Your task to perform on an android device: turn vacation reply on in the gmail app Image 0: 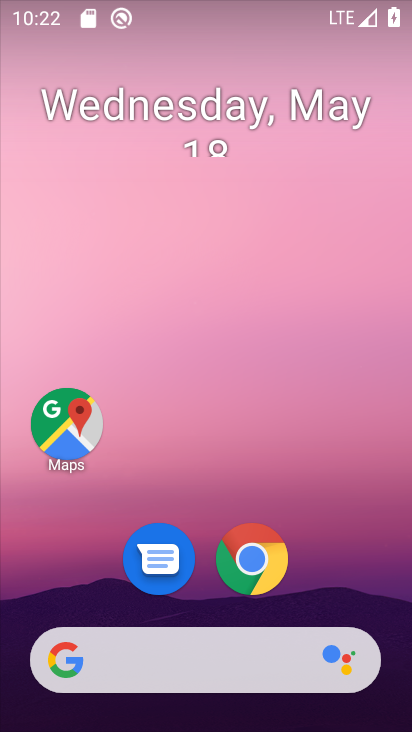
Step 0: drag from (211, 590) to (230, 110)
Your task to perform on an android device: turn vacation reply on in the gmail app Image 1: 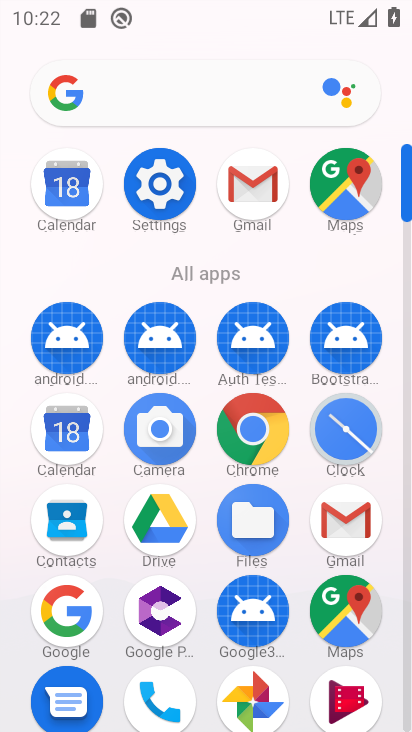
Step 1: click (346, 510)
Your task to perform on an android device: turn vacation reply on in the gmail app Image 2: 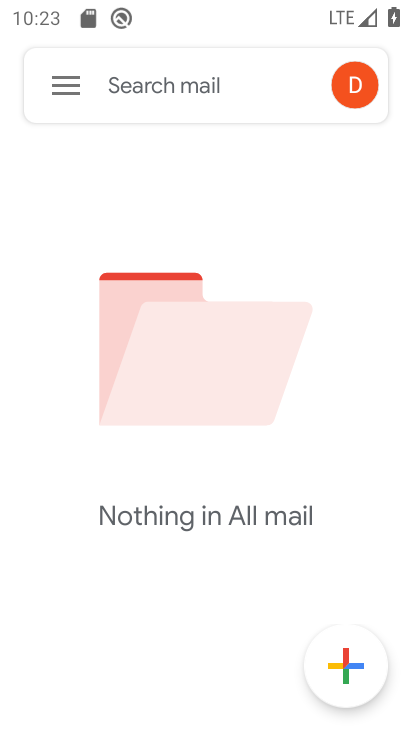
Step 2: click (64, 82)
Your task to perform on an android device: turn vacation reply on in the gmail app Image 3: 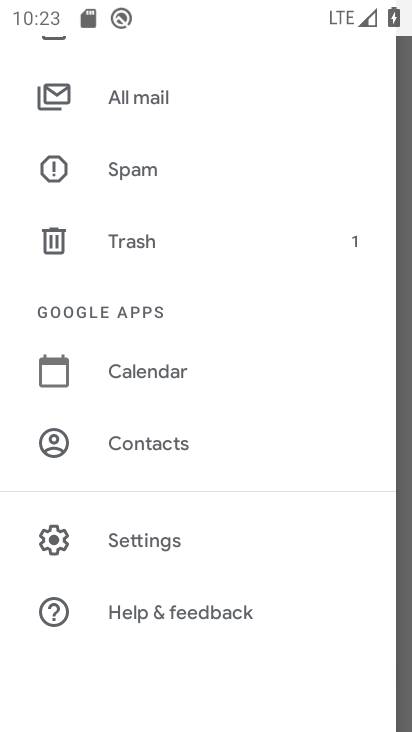
Step 3: click (157, 548)
Your task to perform on an android device: turn vacation reply on in the gmail app Image 4: 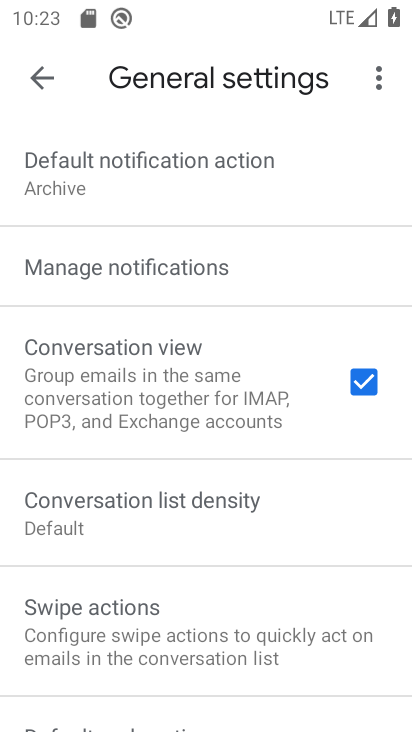
Step 4: click (39, 84)
Your task to perform on an android device: turn vacation reply on in the gmail app Image 5: 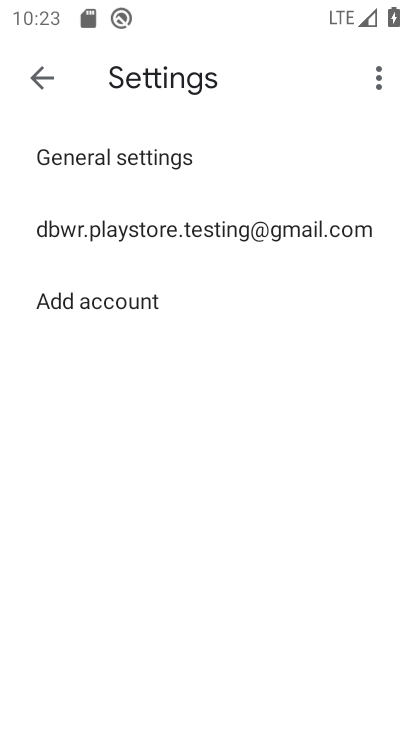
Step 5: click (115, 238)
Your task to perform on an android device: turn vacation reply on in the gmail app Image 6: 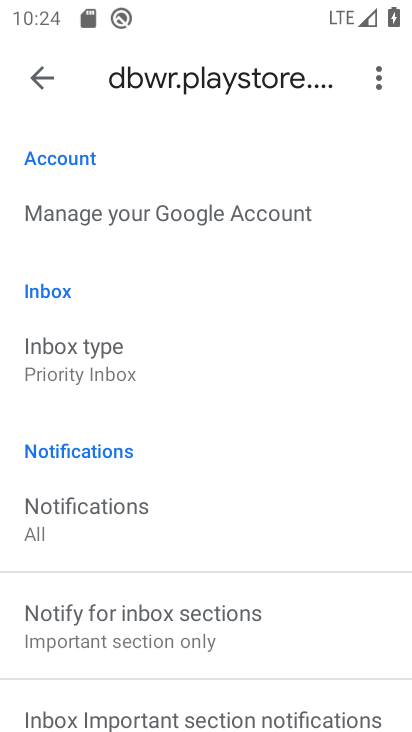
Step 6: drag from (159, 628) to (274, 184)
Your task to perform on an android device: turn vacation reply on in the gmail app Image 7: 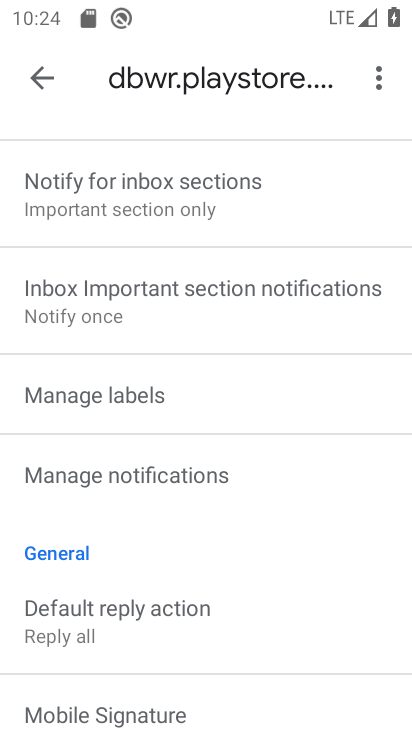
Step 7: drag from (148, 638) to (225, 202)
Your task to perform on an android device: turn vacation reply on in the gmail app Image 8: 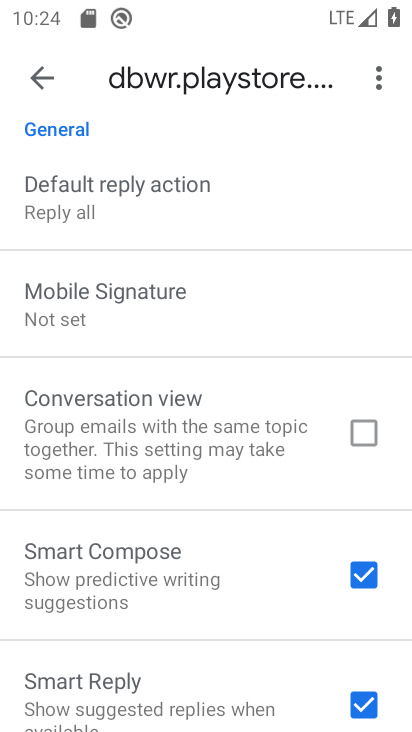
Step 8: drag from (162, 588) to (244, 185)
Your task to perform on an android device: turn vacation reply on in the gmail app Image 9: 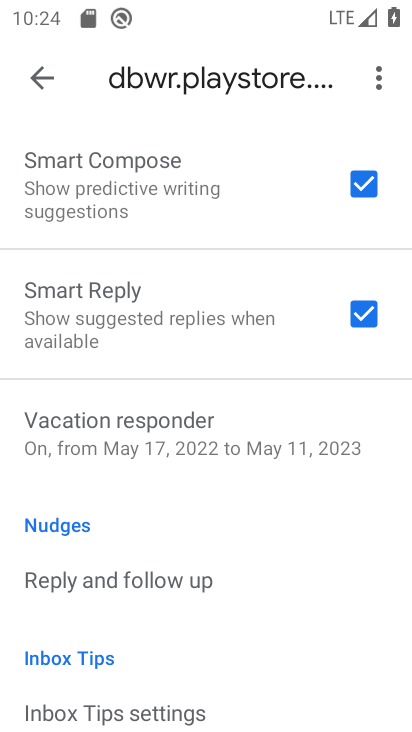
Step 9: click (149, 440)
Your task to perform on an android device: turn vacation reply on in the gmail app Image 10: 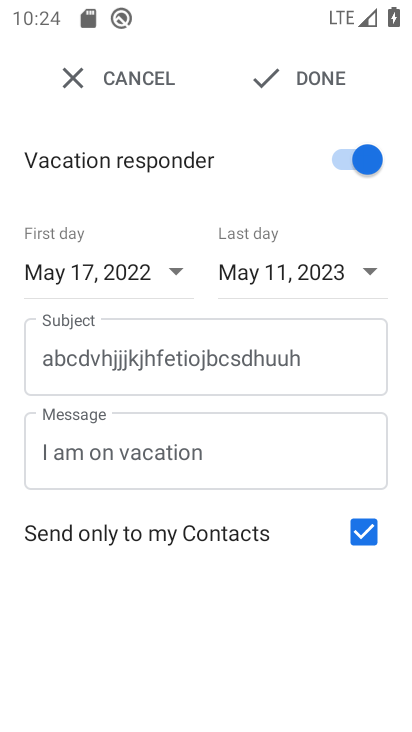
Step 10: task complete